Your task to perform on an android device: Open calendar and show me the second week of next month Image 0: 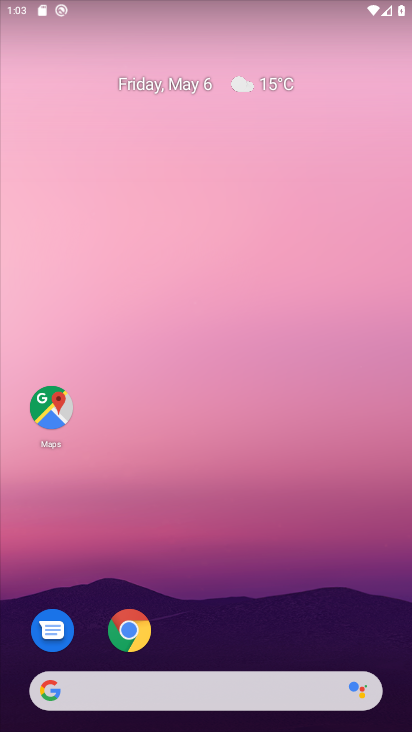
Step 0: click (285, 96)
Your task to perform on an android device: Open calendar and show me the second week of next month Image 1: 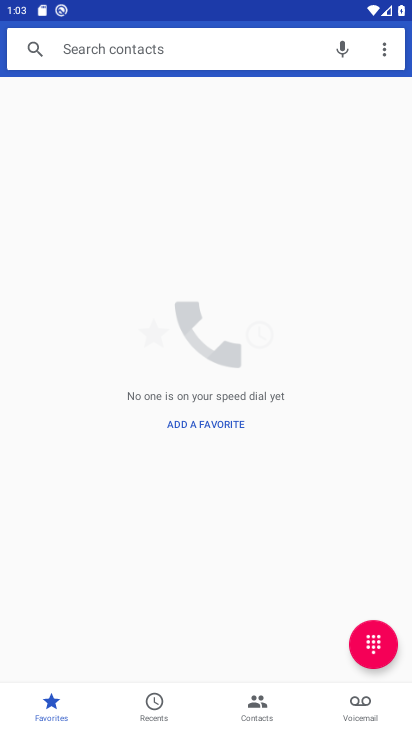
Step 1: press home button
Your task to perform on an android device: Open calendar and show me the second week of next month Image 2: 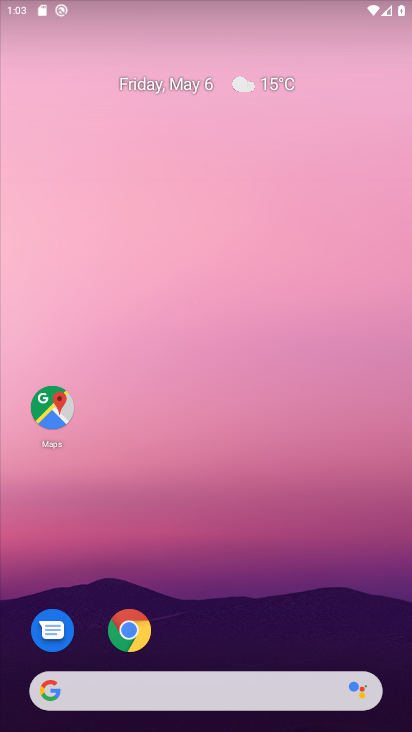
Step 2: drag from (266, 573) to (327, 103)
Your task to perform on an android device: Open calendar and show me the second week of next month Image 3: 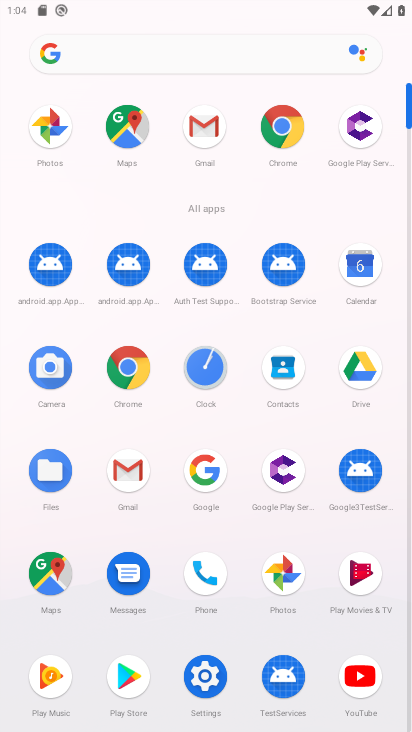
Step 3: click (350, 266)
Your task to perform on an android device: Open calendar and show me the second week of next month Image 4: 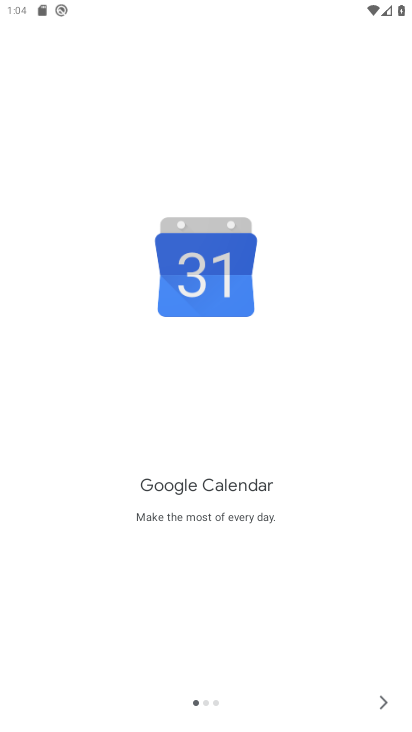
Step 4: click (381, 700)
Your task to perform on an android device: Open calendar and show me the second week of next month Image 5: 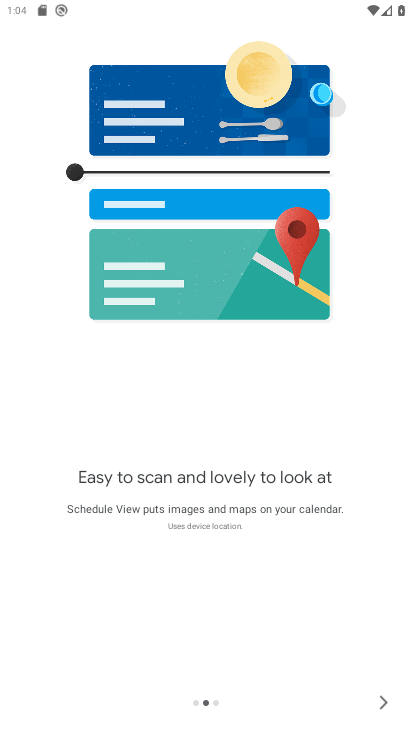
Step 5: click (381, 700)
Your task to perform on an android device: Open calendar and show me the second week of next month Image 6: 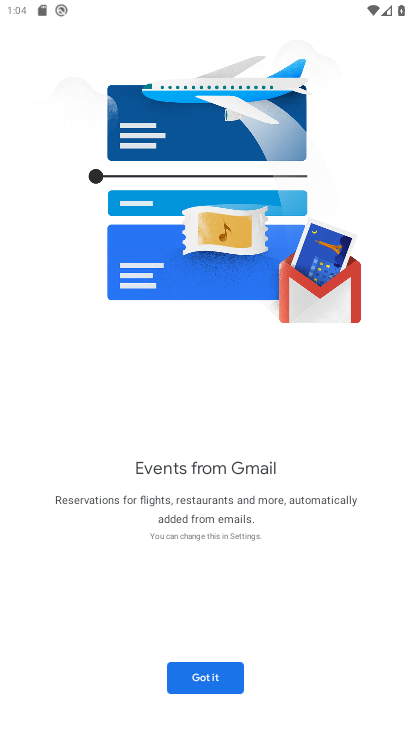
Step 6: click (380, 700)
Your task to perform on an android device: Open calendar and show me the second week of next month Image 7: 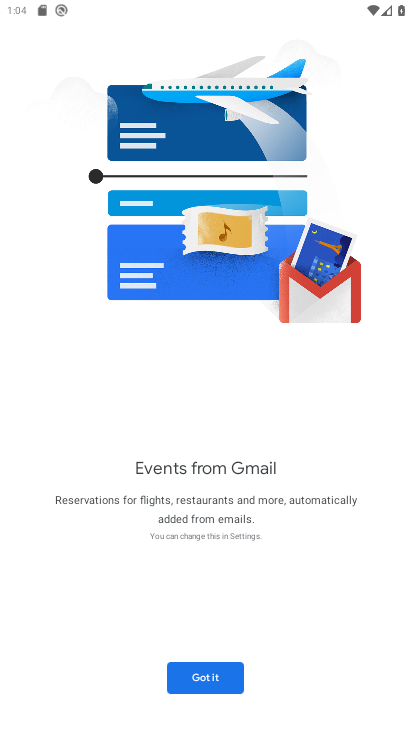
Step 7: click (202, 676)
Your task to perform on an android device: Open calendar and show me the second week of next month Image 8: 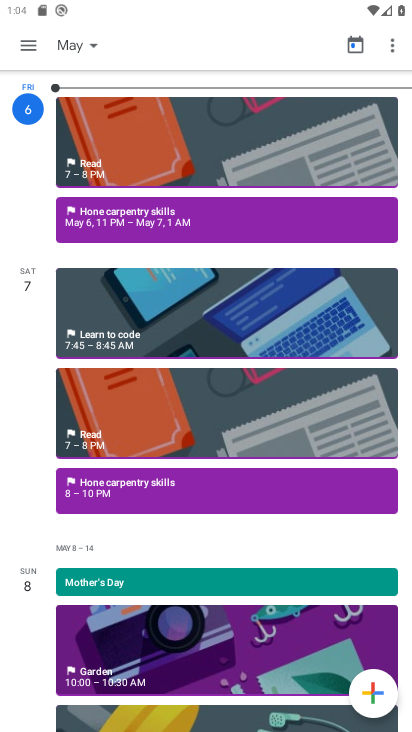
Step 8: click (93, 45)
Your task to perform on an android device: Open calendar and show me the second week of next month Image 9: 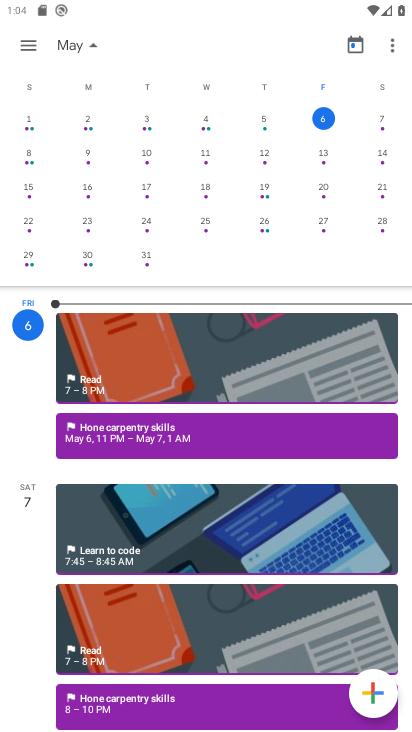
Step 9: drag from (384, 266) to (0, 237)
Your task to perform on an android device: Open calendar and show me the second week of next month Image 10: 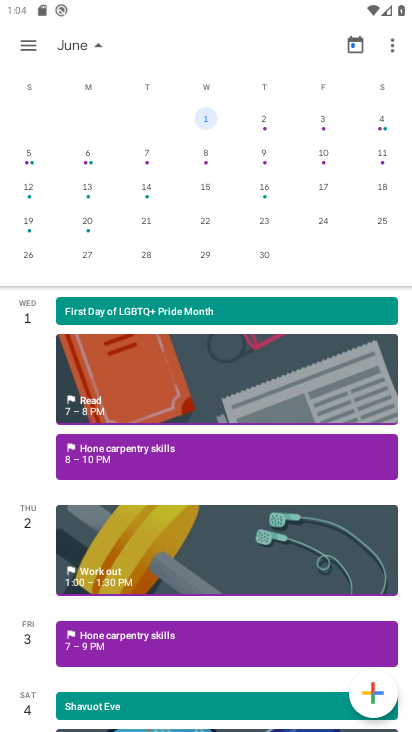
Step 10: click (260, 152)
Your task to perform on an android device: Open calendar and show me the second week of next month Image 11: 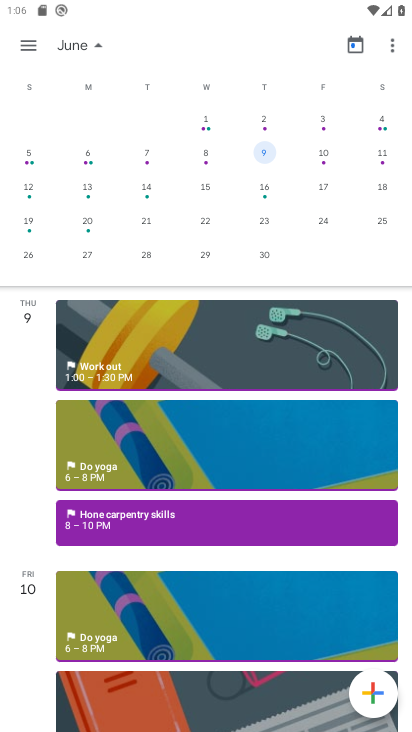
Step 11: task complete